Your task to perform on an android device: toggle wifi Image 0: 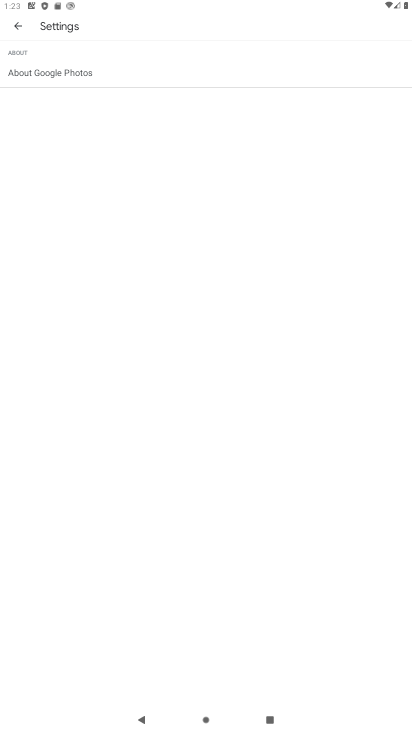
Step 0: press home button
Your task to perform on an android device: toggle wifi Image 1: 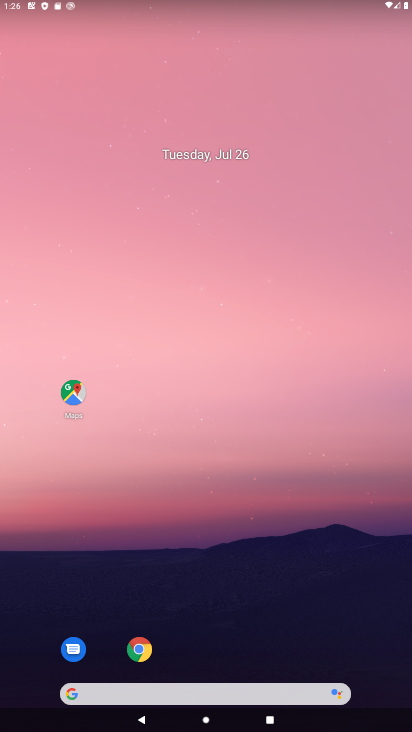
Step 1: drag from (274, 5) to (268, 421)
Your task to perform on an android device: toggle wifi Image 2: 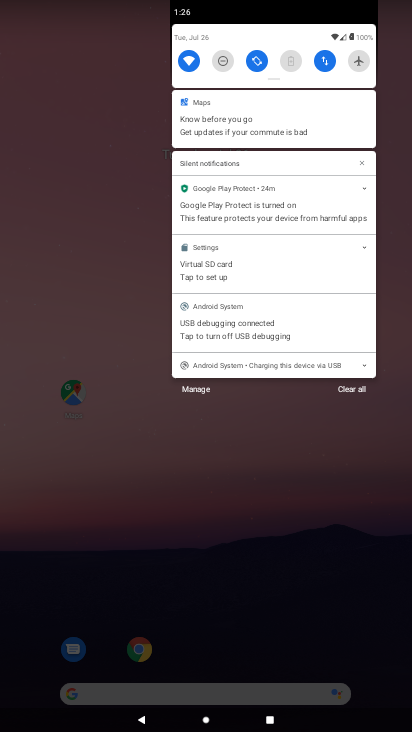
Step 2: click (358, 54)
Your task to perform on an android device: toggle wifi Image 3: 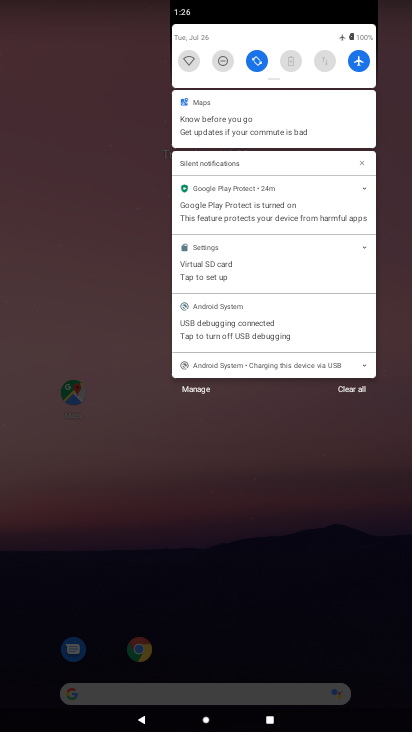
Step 3: task complete